Your task to perform on an android device: turn smart compose on in the gmail app Image 0: 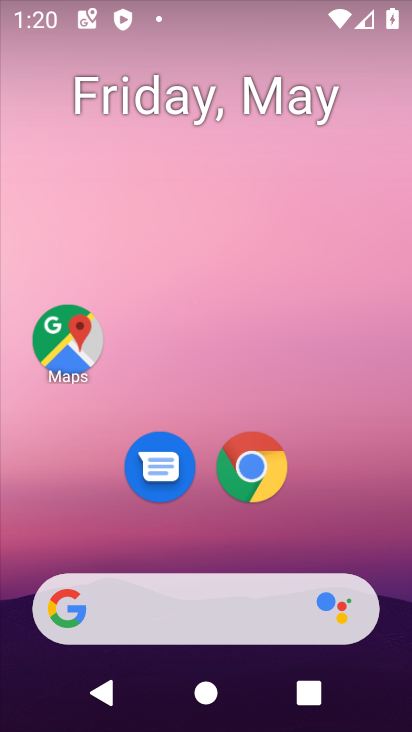
Step 0: drag from (347, 536) to (304, 82)
Your task to perform on an android device: turn smart compose on in the gmail app Image 1: 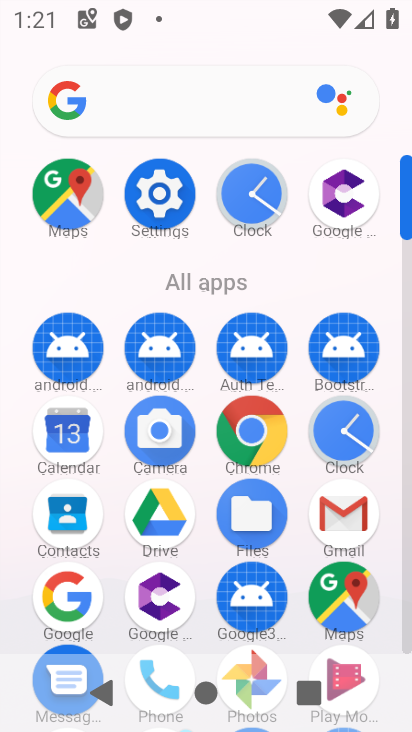
Step 1: click (336, 534)
Your task to perform on an android device: turn smart compose on in the gmail app Image 2: 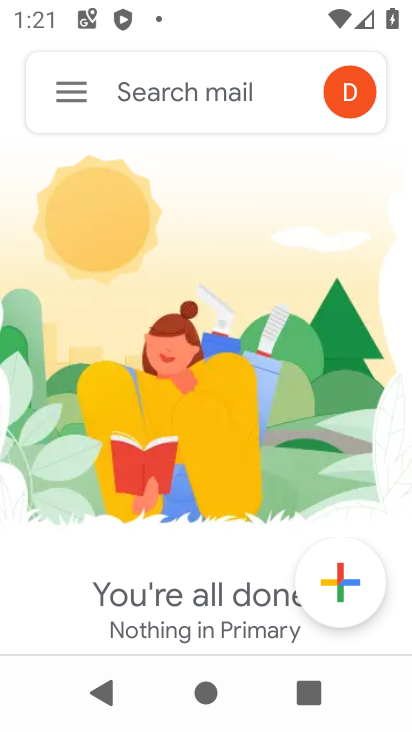
Step 2: click (59, 89)
Your task to perform on an android device: turn smart compose on in the gmail app Image 3: 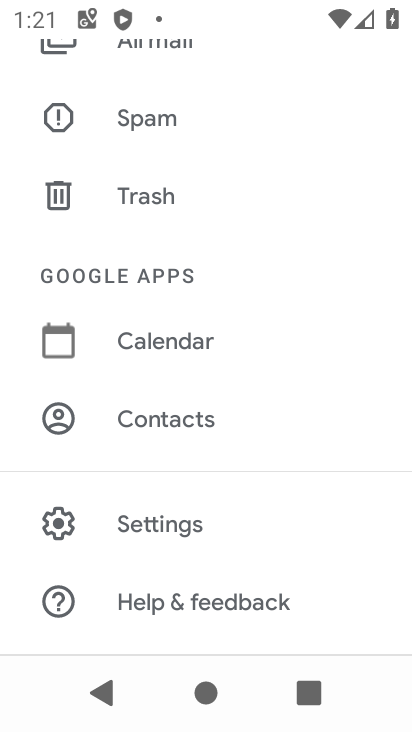
Step 3: click (183, 539)
Your task to perform on an android device: turn smart compose on in the gmail app Image 4: 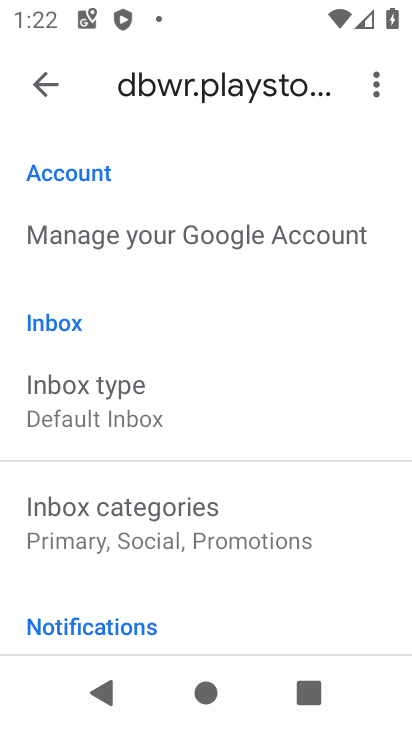
Step 4: task complete